Your task to perform on an android device: open app "Microsoft Outlook" (install if not already installed) and go to login screen Image 0: 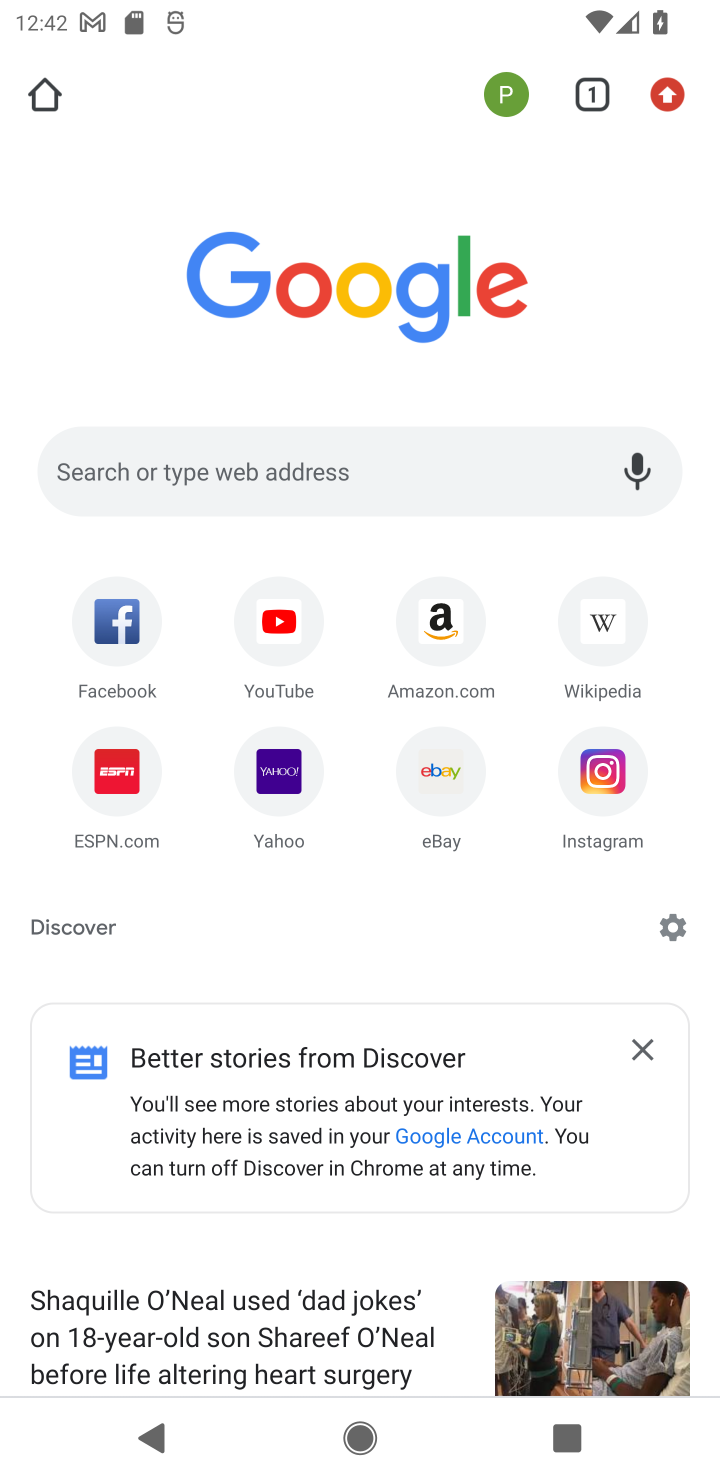
Step 0: press home button
Your task to perform on an android device: open app "Microsoft Outlook" (install if not already installed) and go to login screen Image 1: 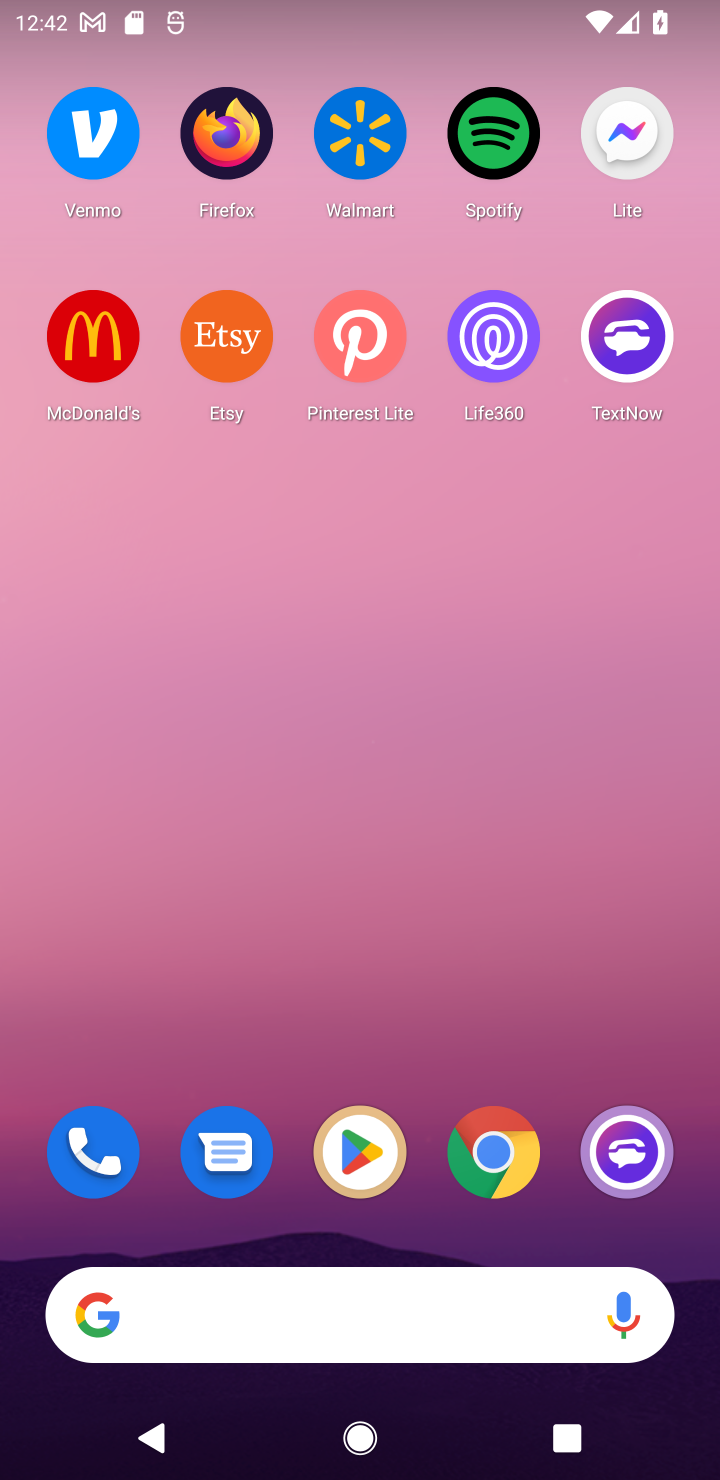
Step 1: click (342, 1170)
Your task to perform on an android device: open app "Microsoft Outlook" (install if not already installed) and go to login screen Image 2: 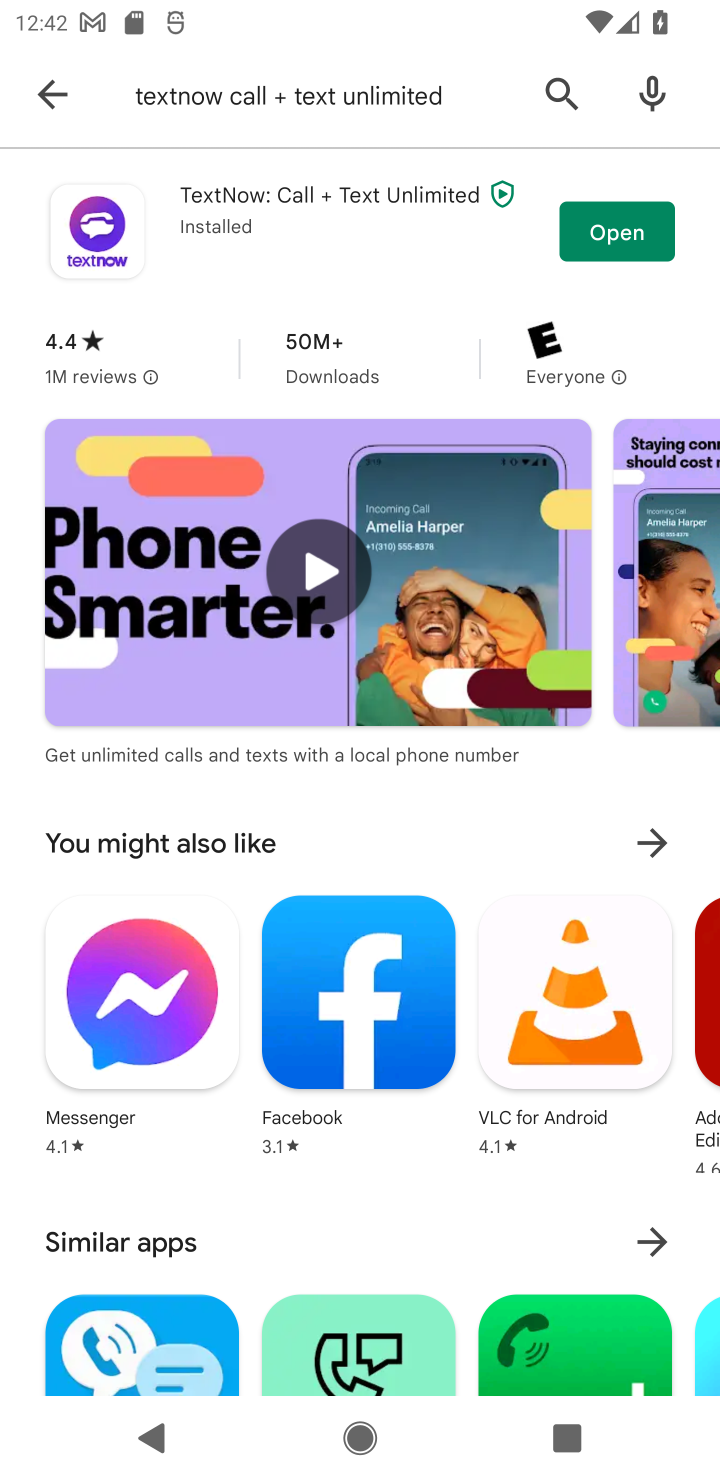
Step 2: click (48, 89)
Your task to perform on an android device: open app "Microsoft Outlook" (install if not already installed) and go to login screen Image 3: 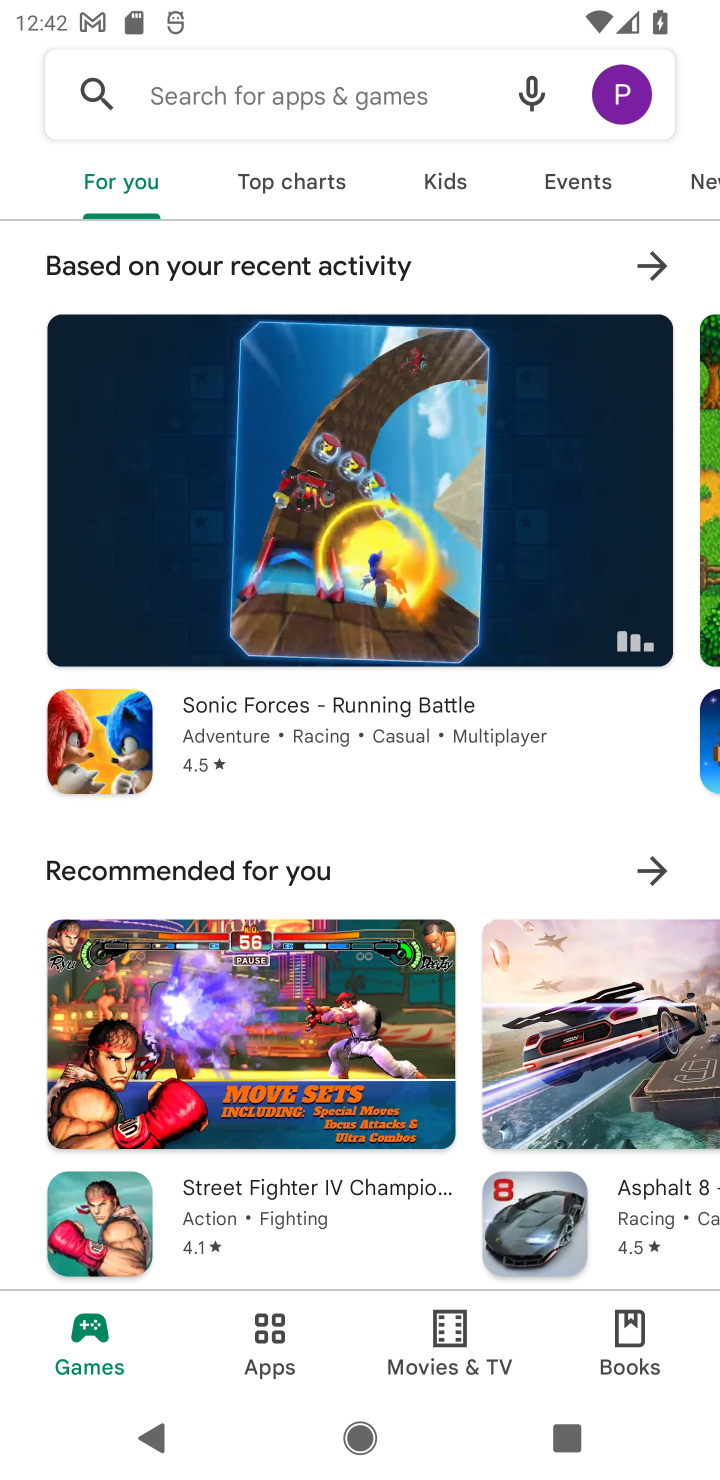
Step 3: click (221, 94)
Your task to perform on an android device: open app "Microsoft Outlook" (install if not already installed) and go to login screen Image 4: 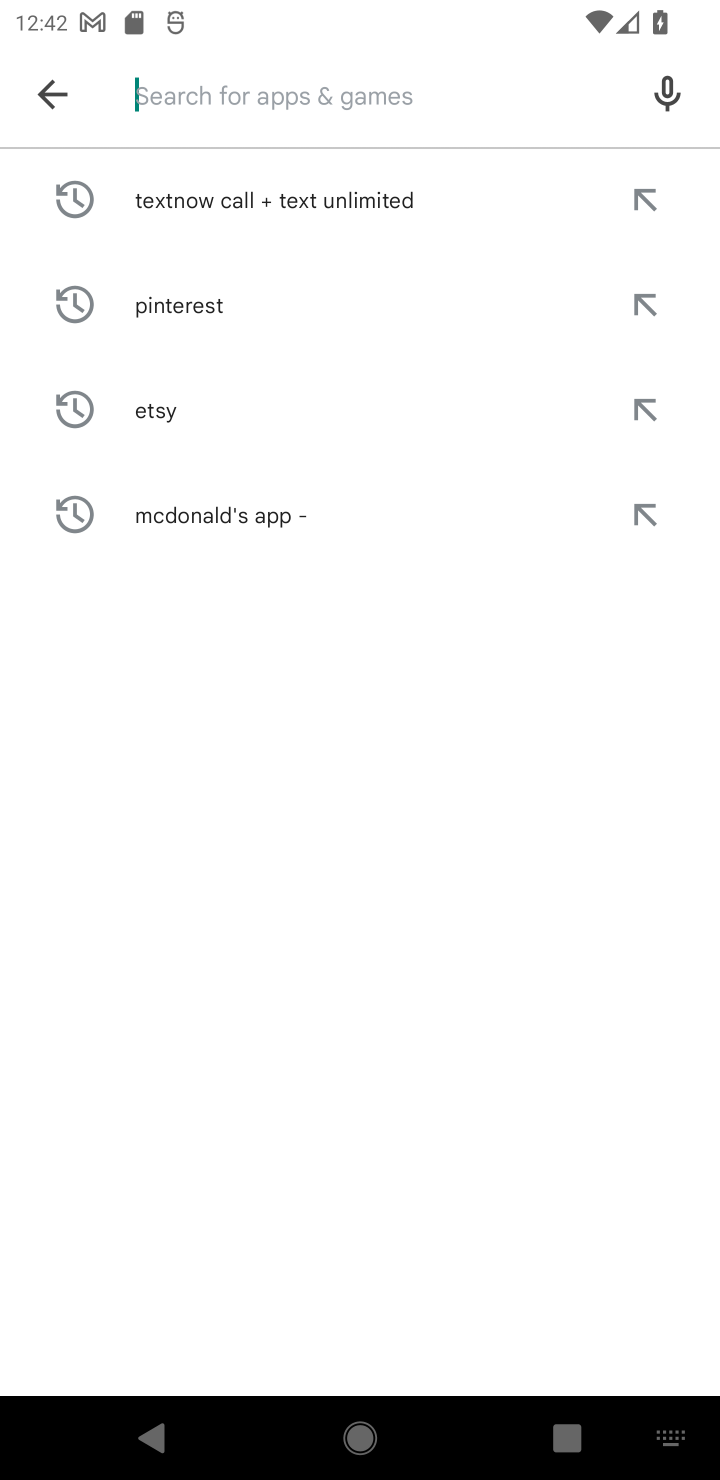
Step 4: type "Microsoft Outlook""
Your task to perform on an android device: open app "Microsoft Outlook" (install if not already installed) and go to login screen Image 5: 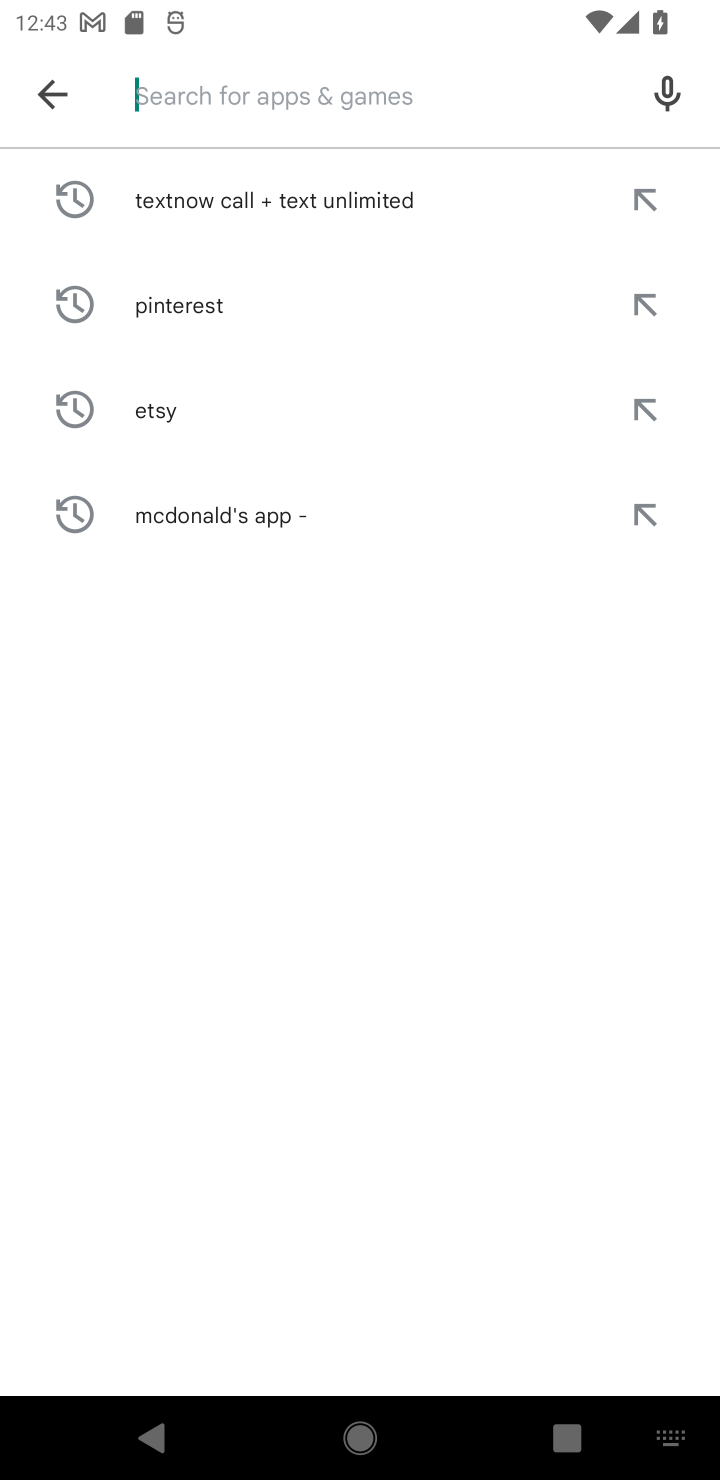
Step 5: type "Microsoft Outlook"
Your task to perform on an android device: open app "Microsoft Outlook" (install if not already installed) and go to login screen Image 6: 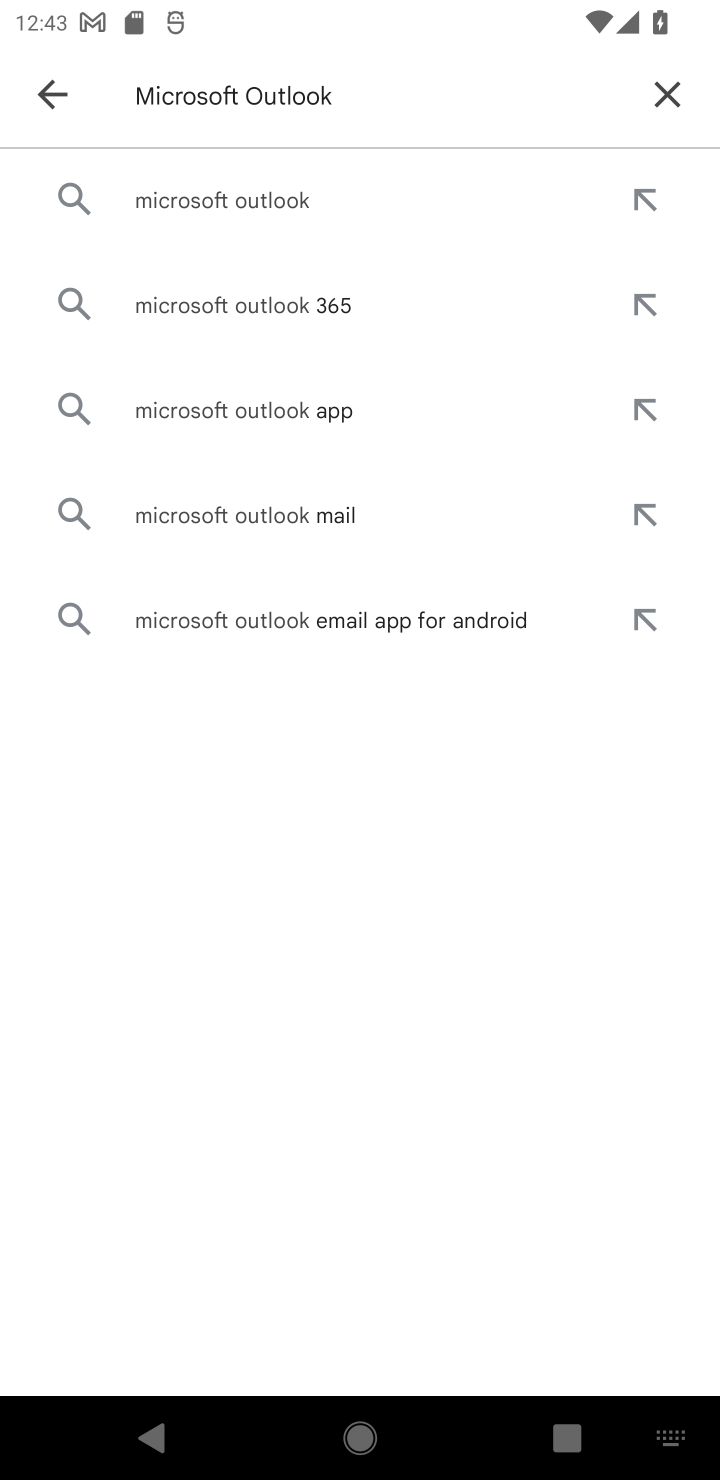
Step 6: click (274, 189)
Your task to perform on an android device: open app "Microsoft Outlook" (install if not already installed) and go to login screen Image 7: 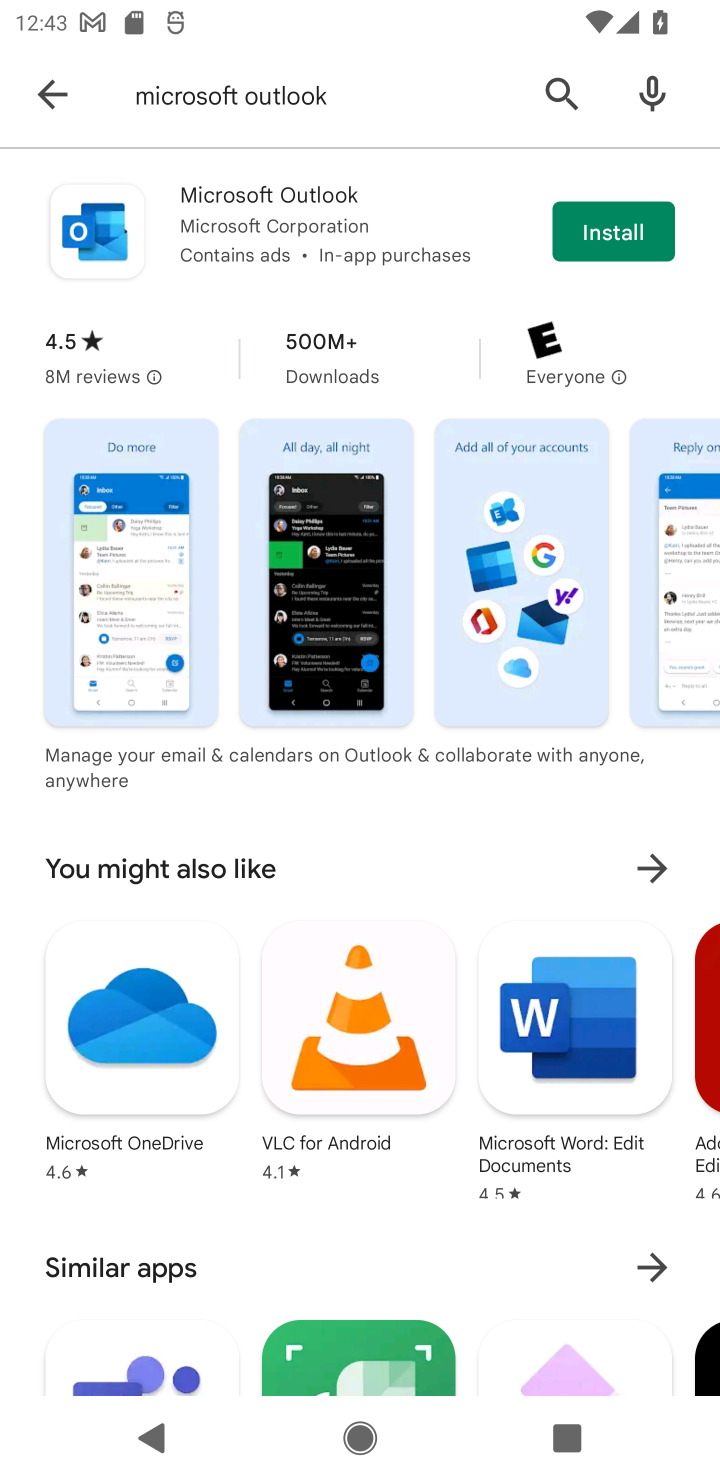
Step 7: click (615, 230)
Your task to perform on an android device: open app "Microsoft Outlook" (install if not already installed) and go to login screen Image 8: 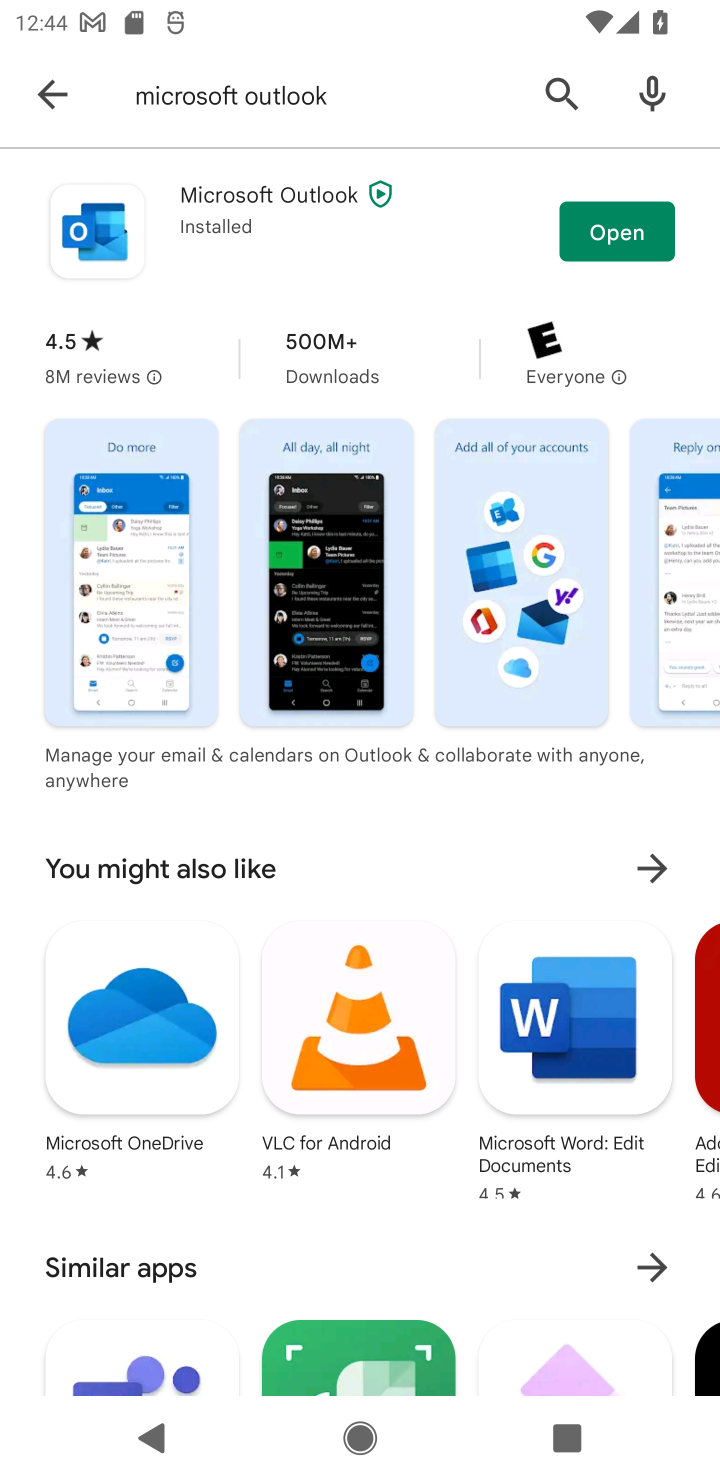
Step 8: click (635, 221)
Your task to perform on an android device: open app "Microsoft Outlook" (install if not already installed) and go to login screen Image 9: 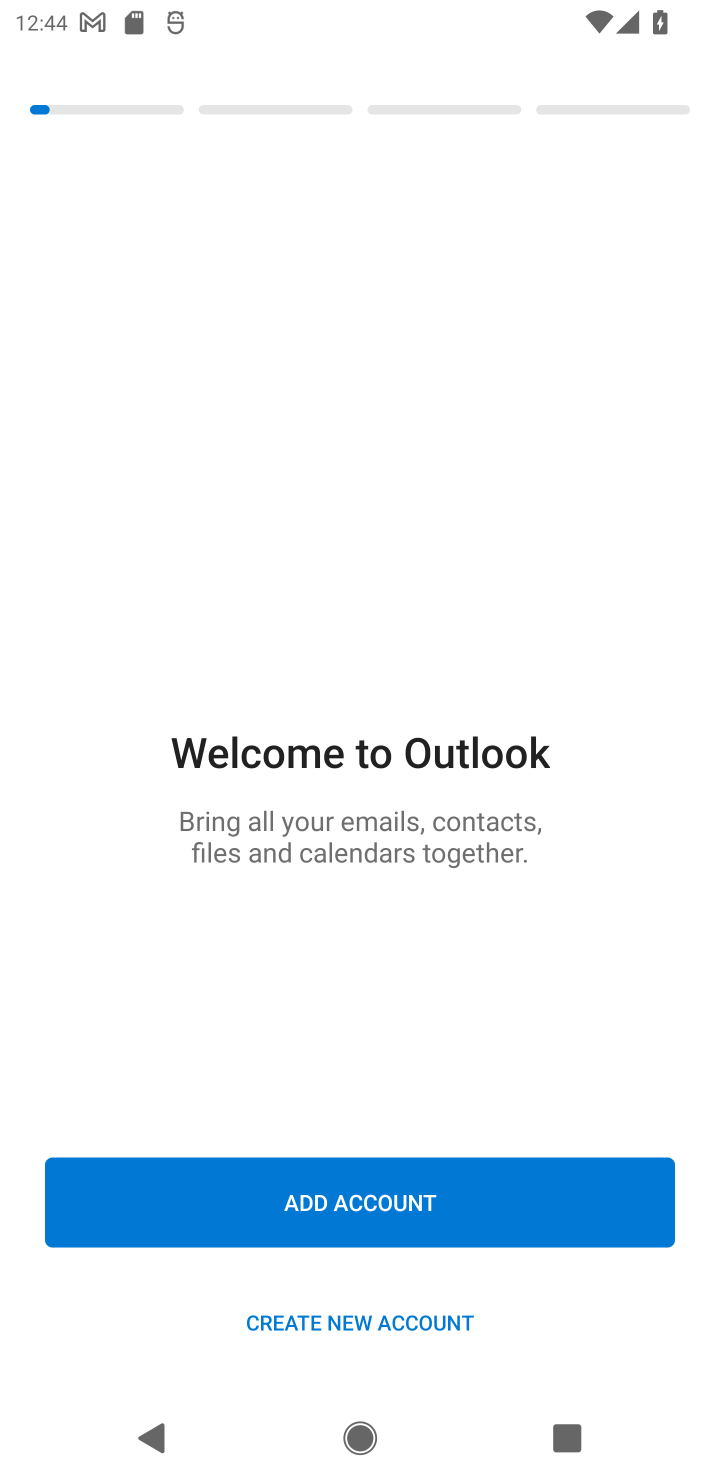
Step 9: task complete